Your task to perform on an android device: uninstall "Facebook Lite" Image 0: 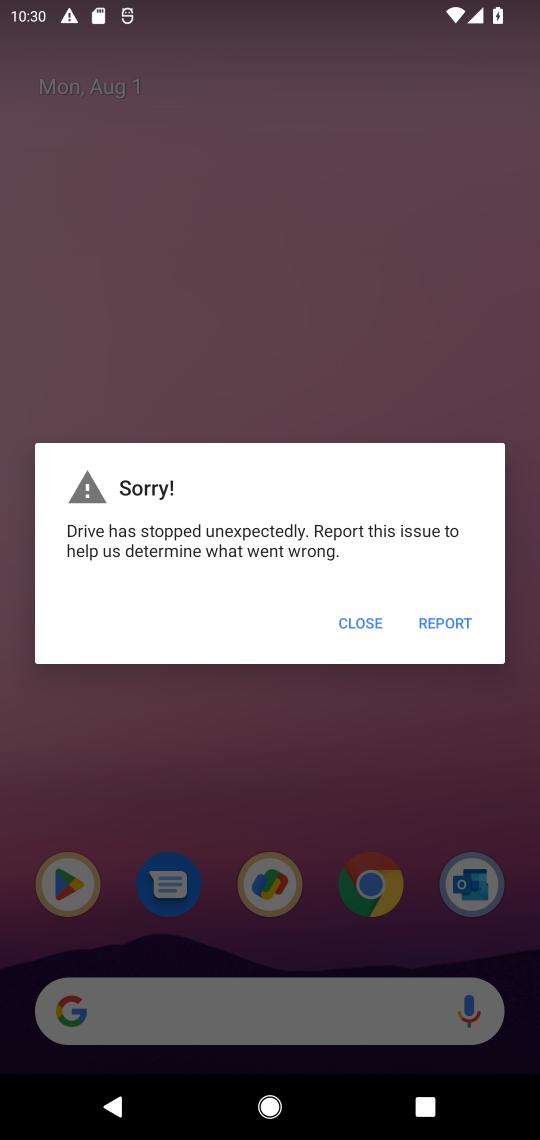
Step 0: press home button
Your task to perform on an android device: uninstall "Facebook Lite" Image 1: 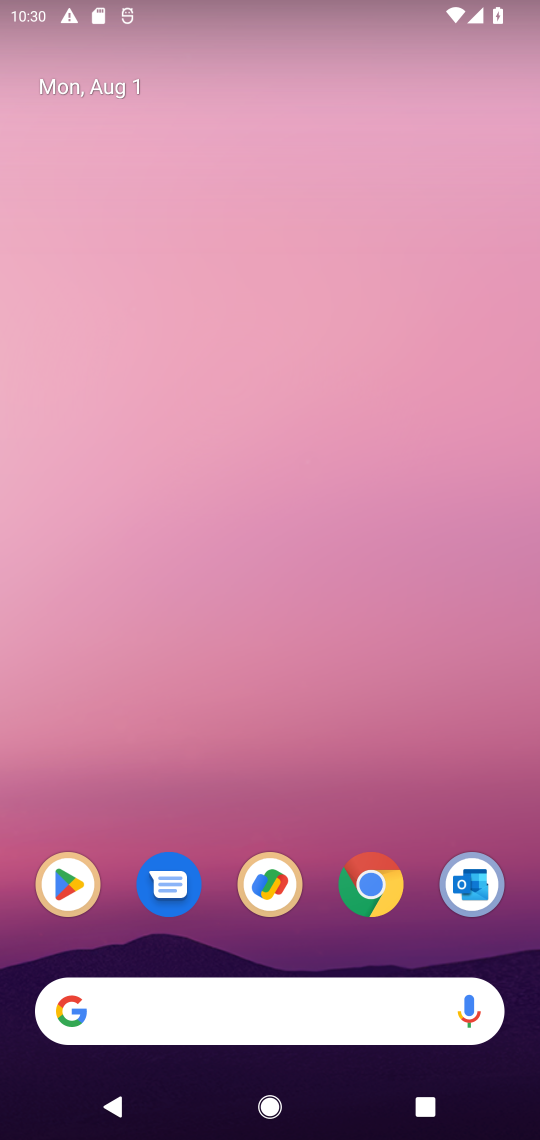
Step 1: click (61, 884)
Your task to perform on an android device: uninstall "Facebook Lite" Image 2: 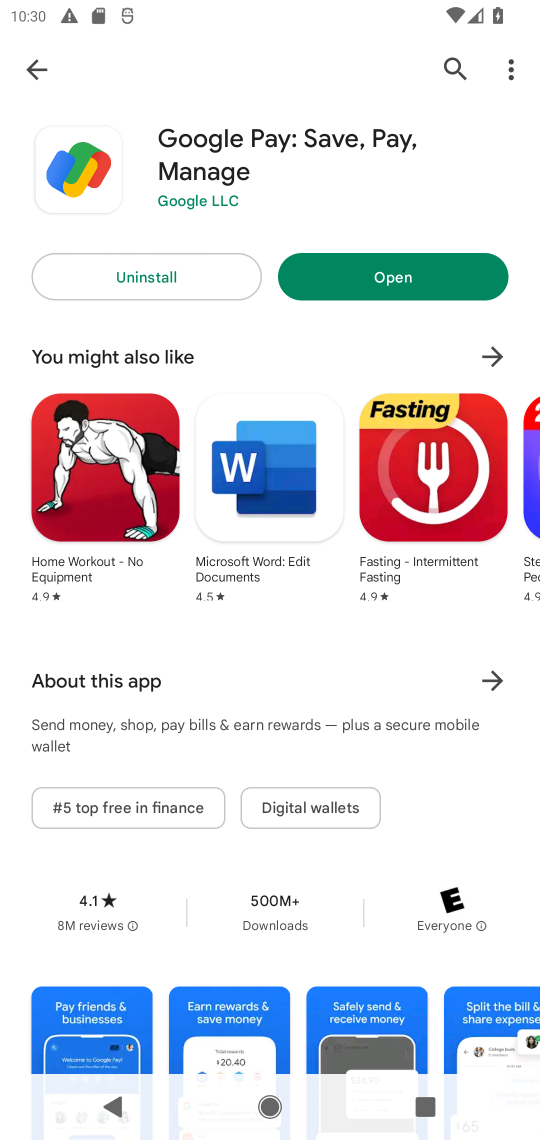
Step 2: click (455, 60)
Your task to perform on an android device: uninstall "Facebook Lite" Image 3: 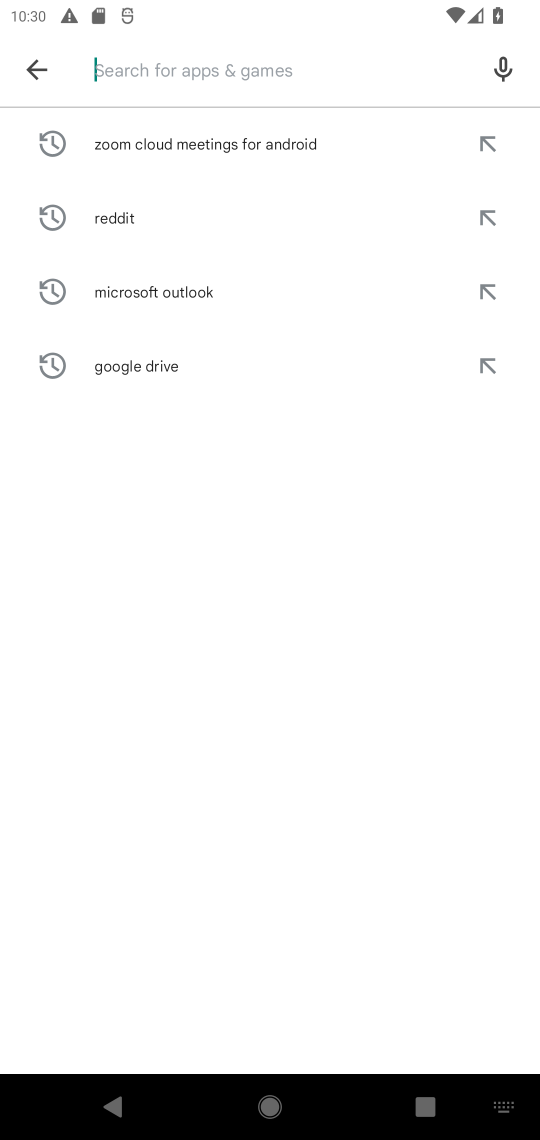
Step 3: type "facebook lite"
Your task to perform on an android device: uninstall "Facebook Lite" Image 4: 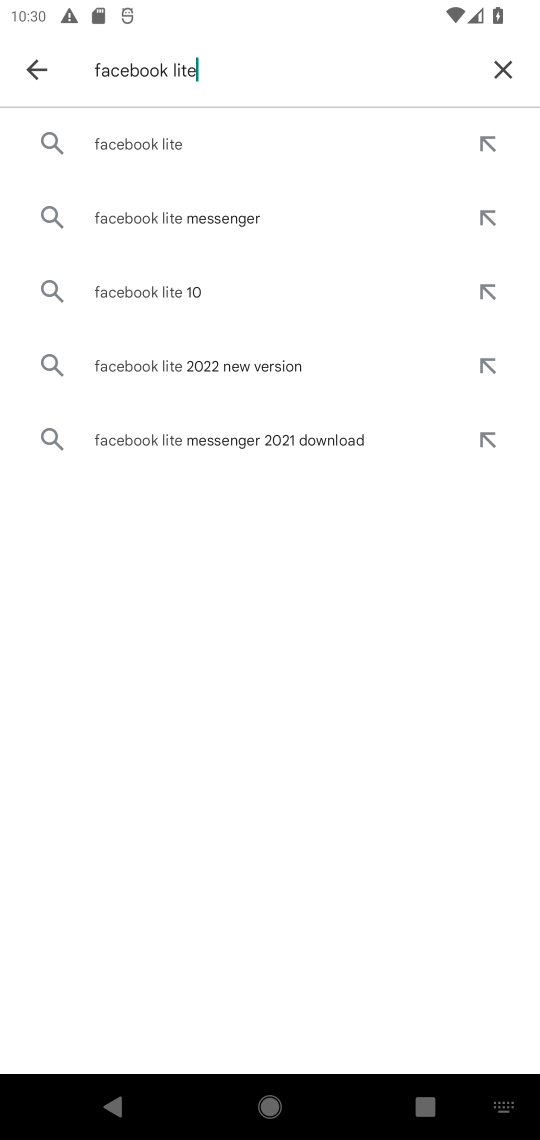
Step 4: click (139, 135)
Your task to perform on an android device: uninstall "Facebook Lite" Image 5: 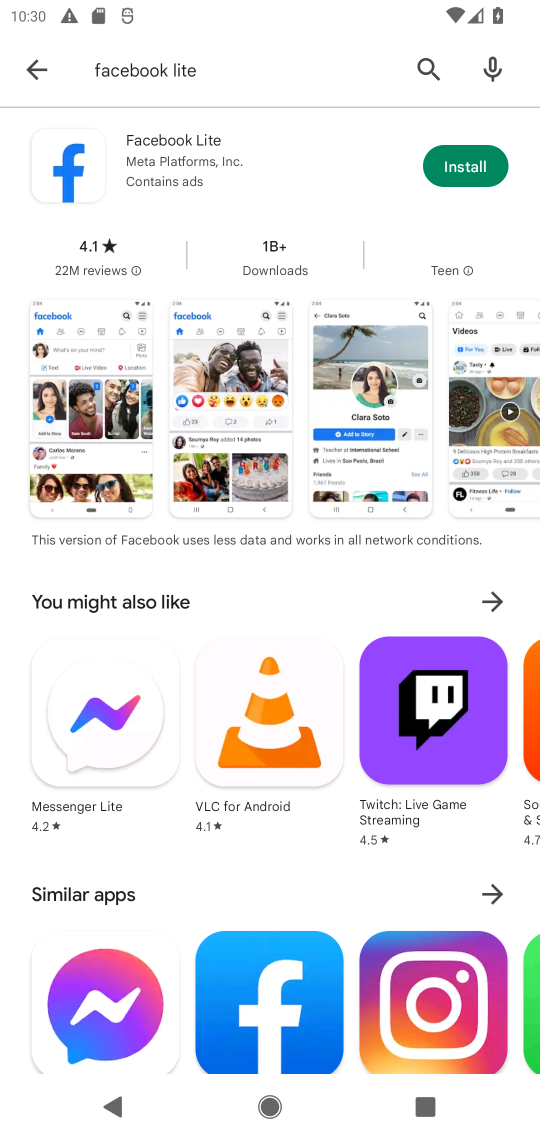
Step 5: click (166, 135)
Your task to perform on an android device: uninstall "Facebook Lite" Image 6: 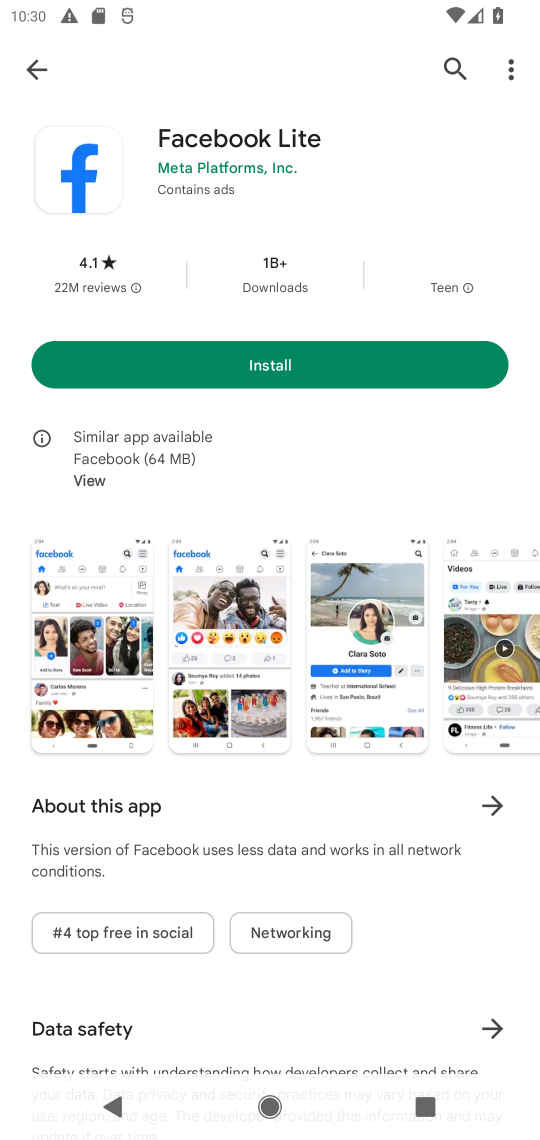
Step 6: task complete